Your task to perform on an android device: What's on my calendar today? Image 0: 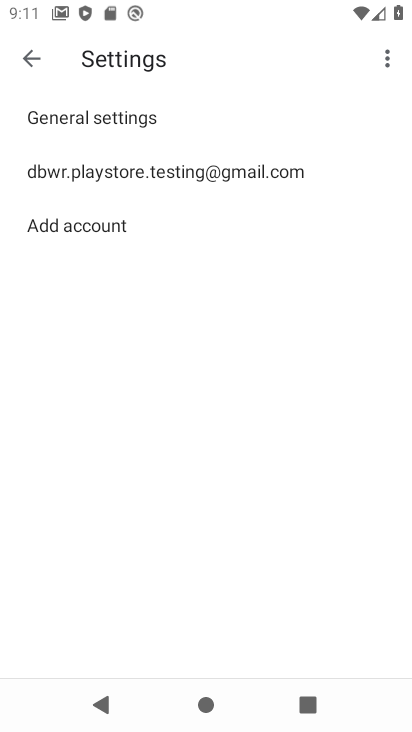
Step 0: press home button
Your task to perform on an android device: What's on my calendar today? Image 1: 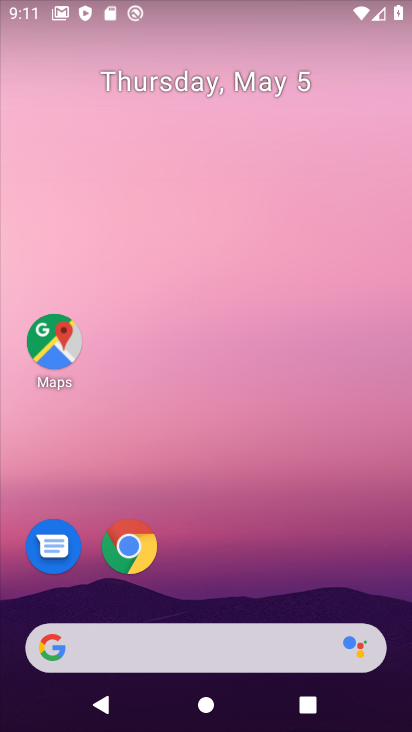
Step 1: drag from (198, 603) to (225, 65)
Your task to perform on an android device: What's on my calendar today? Image 2: 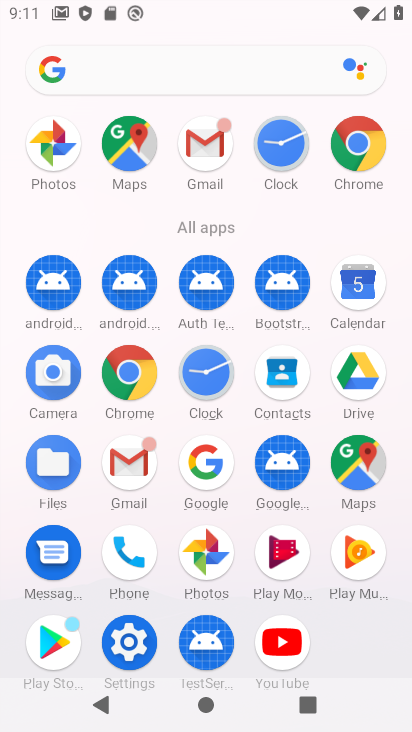
Step 2: click (344, 296)
Your task to perform on an android device: What's on my calendar today? Image 3: 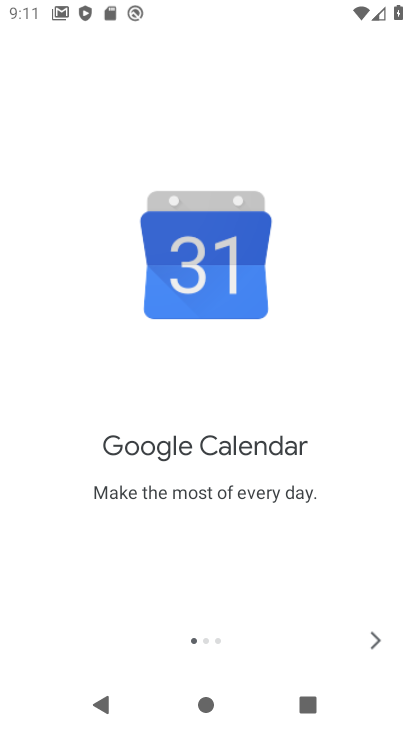
Step 3: click (378, 635)
Your task to perform on an android device: What's on my calendar today? Image 4: 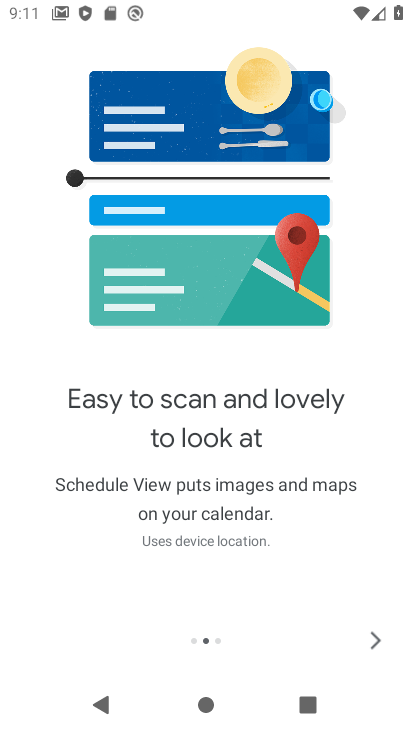
Step 4: click (378, 635)
Your task to perform on an android device: What's on my calendar today? Image 5: 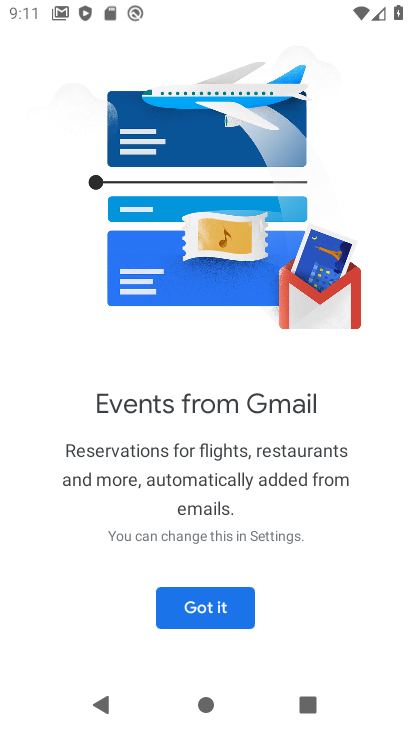
Step 5: click (190, 624)
Your task to perform on an android device: What's on my calendar today? Image 6: 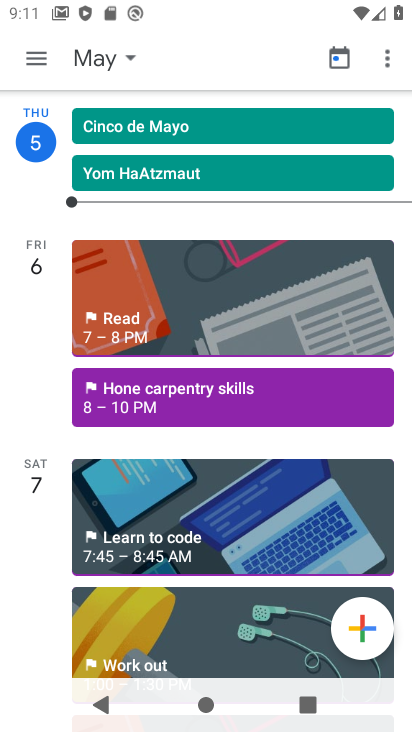
Step 6: click (98, 64)
Your task to perform on an android device: What's on my calendar today? Image 7: 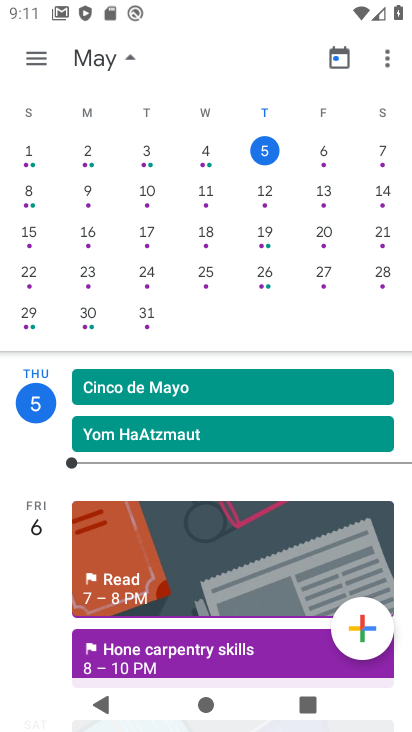
Step 7: click (40, 55)
Your task to perform on an android device: What's on my calendar today? Image 8: 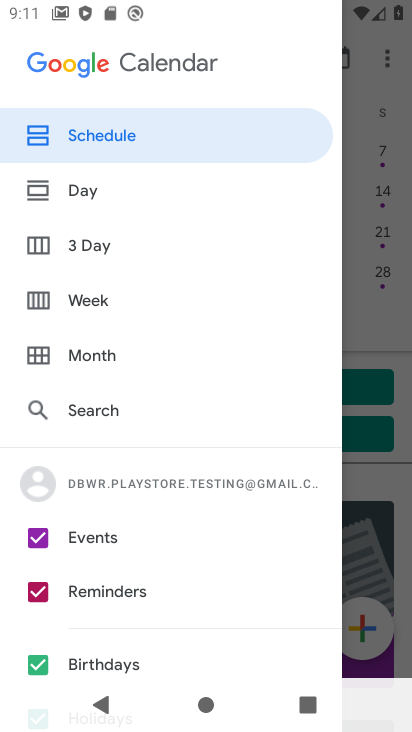
Step 8: click (82, 201)
Your task to perform on an android device: What's on my calendar today? Image 9: 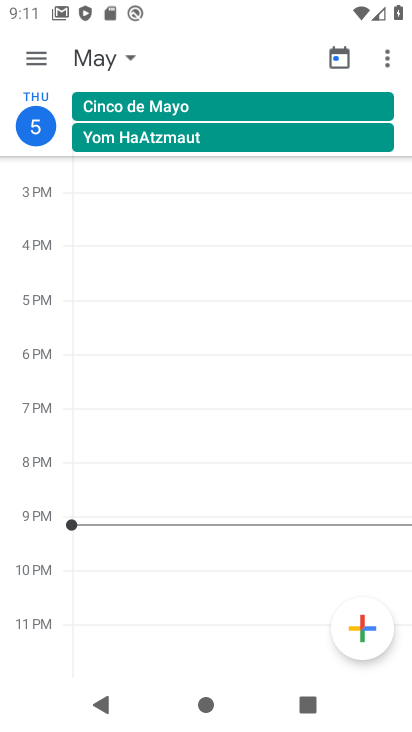
Step 9: task complete